Your task to perform on an android device: toggle notification dots Image 0: 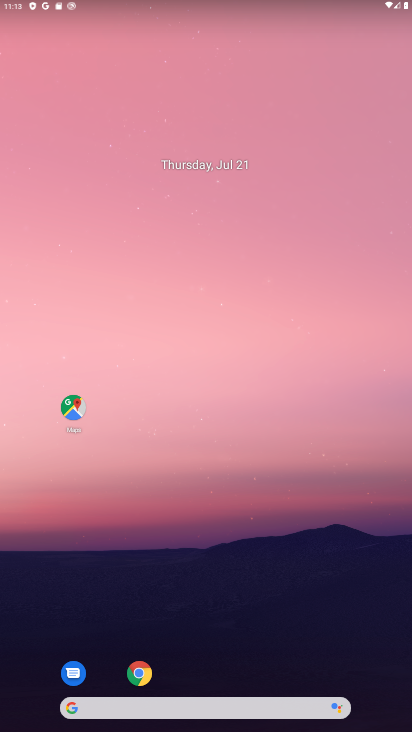
Step 0: drag from (213, 671) to (171, 17)
Your task to perform on an android device: toggle notification dots Image 1: 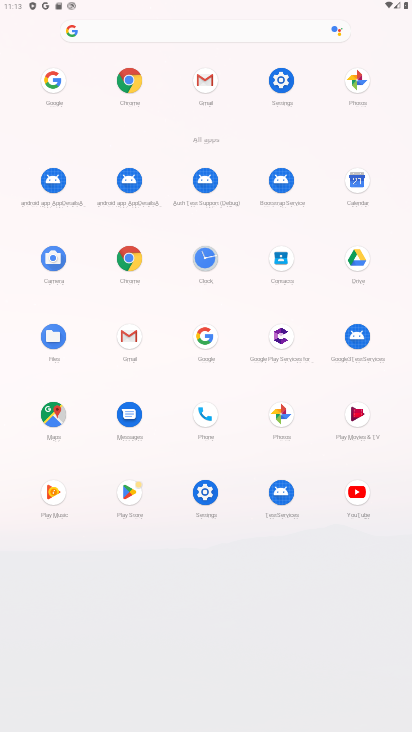
Step 1: click (278, 70)
Your task to perform on an android device: toggle notification dots Image 2: 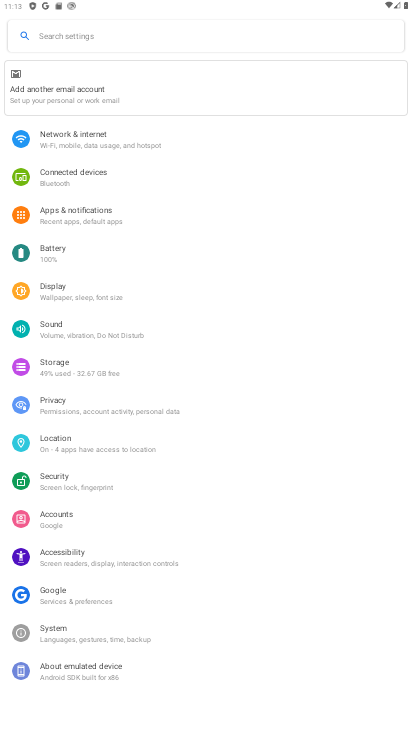
Step 2: click (116, 213)
Your task to perform on an android device: toggle notification dots Image 3: 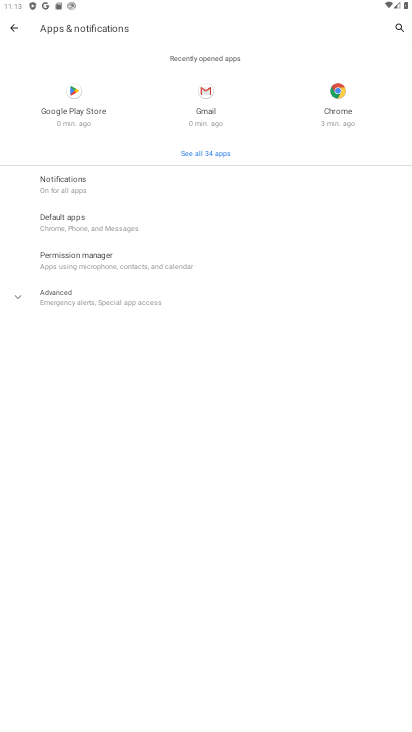
Step 3: click (15, 292)
Your task to perform on an android device: toggle notification dots Image 4: 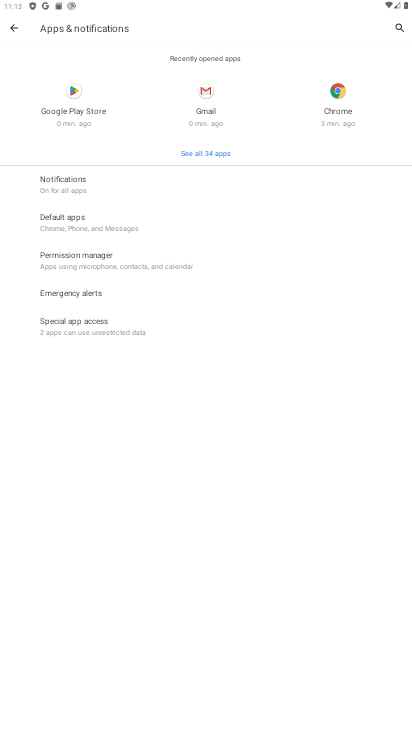
Step 4: click (73, 186)
Your task to perform on an android device: toggle notification dots Image 5: 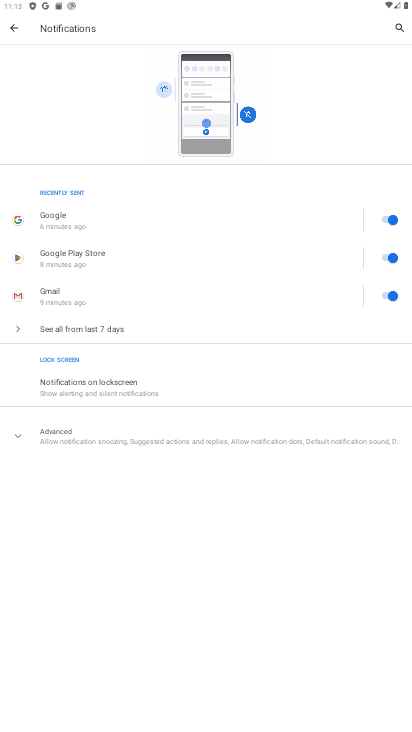
Step 5: click (26, 432)
Your task to perform on an android device: toggle notification dots Image 6: 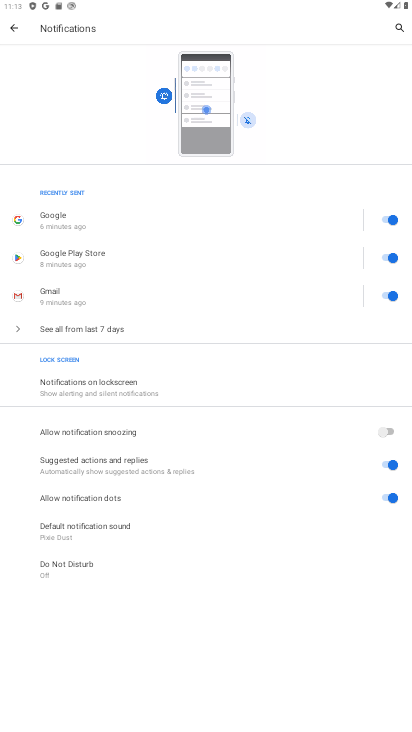
Step 6: click (384, 495)
Your task to perform on an android device: toggle notification dots Image 7: 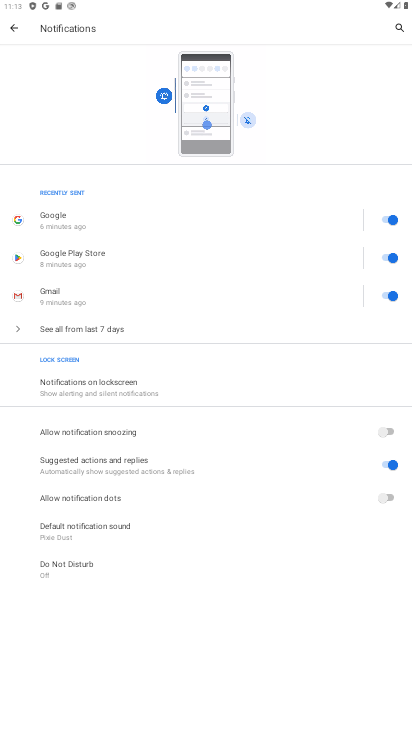
Step 7: task complete